Your task to perform on an android device: Open Google Maps and go to "Timeline" Image 0: 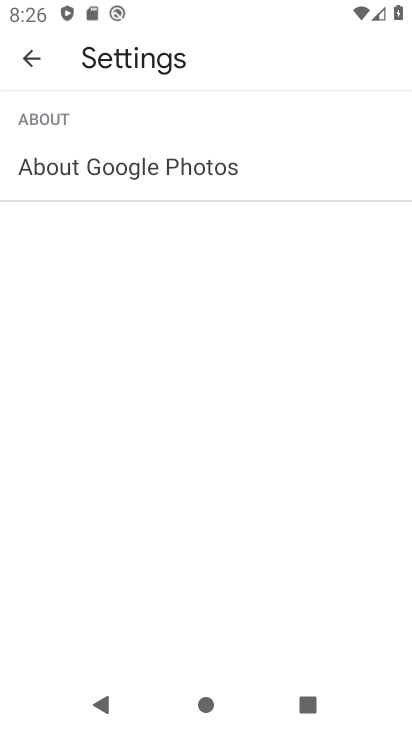
Step 0: press home button
Your task to perform on an android device: Open Google Maps and go to "Timeline" Image 1: 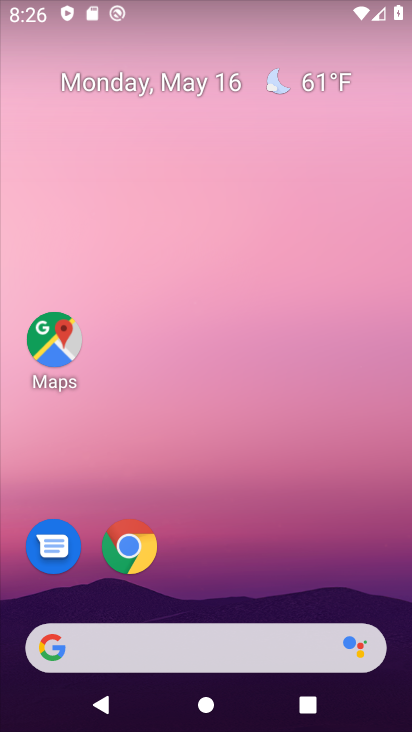
Step 1: click (39, 329)
Your task to perform on an android device: Open Google Maps and go to "Timeline" Image 2: 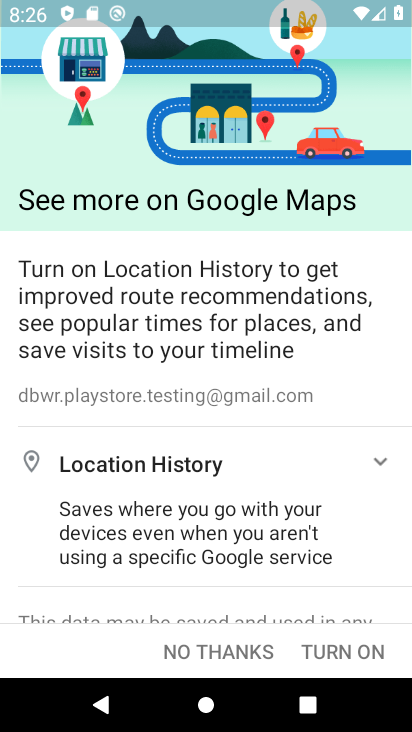
Step 2: click (326, 643)
Your task to perform on an android device: Open Google Maps and go to "Timeline" Image 3: 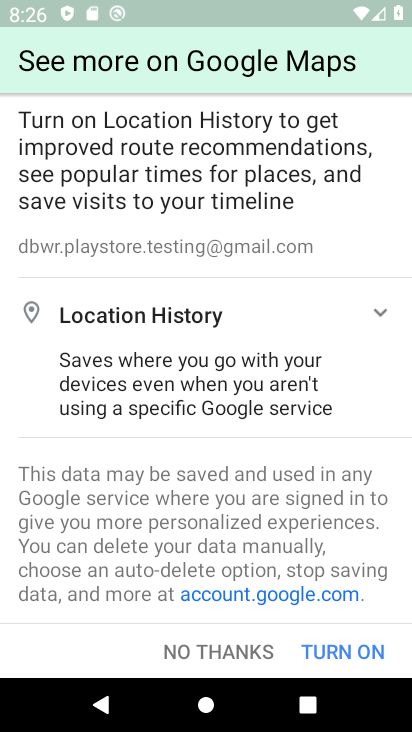
Step 3: click (326, 643)
Your task to perform on an android device: Open Google Maps and go to "Timeline" Image 4: 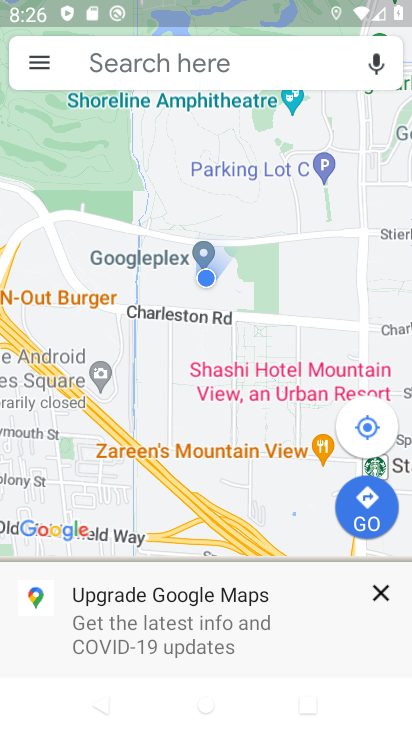
Step 4: click (46, 62)
Your task to perform on an android device: Open Google Maps and go to "Timeline" Image 5: 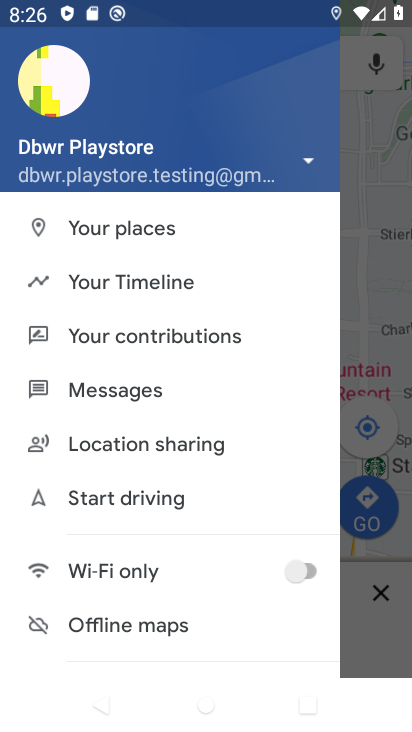
Step 5: click (110, 286)
Your task to perform on an android device: Open Google Maps and go to "Timeline" Image 6: 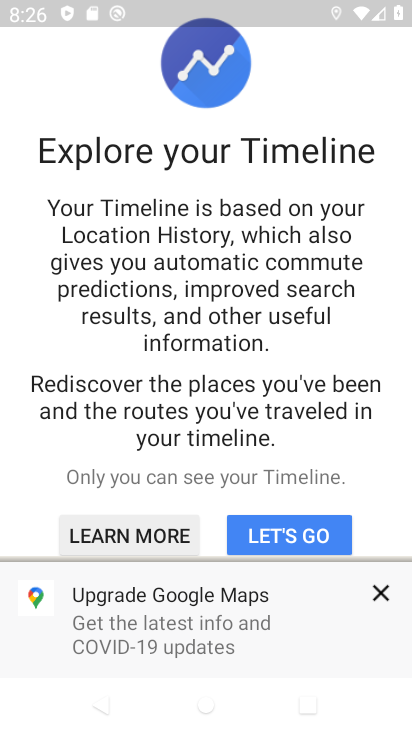
Step 6: click (237, 534)
Your task to perform on an android device: Open Google Maps and go to "Timeline" Image 7: 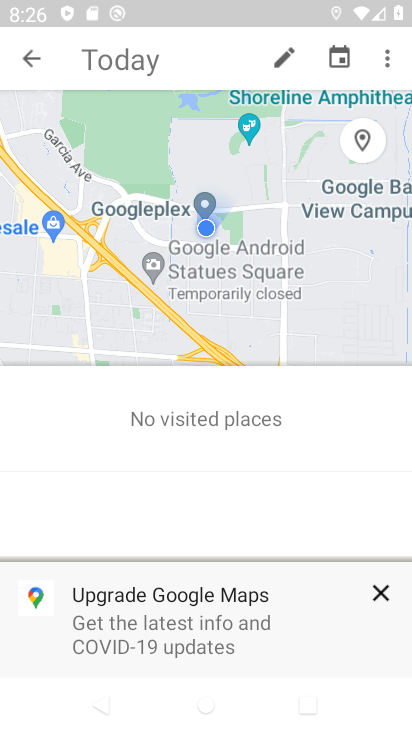
Step 7: task complete